Your task to perform on an android device: Go to settings Image 0: 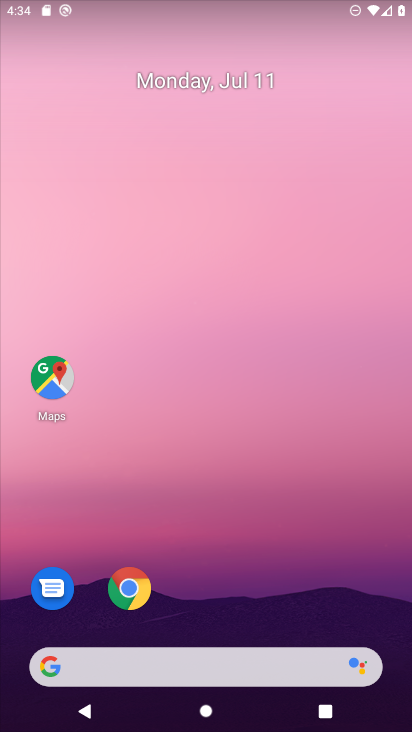
Step 0: press home button
Your task to perform on an android device: Go to settings Image 1: 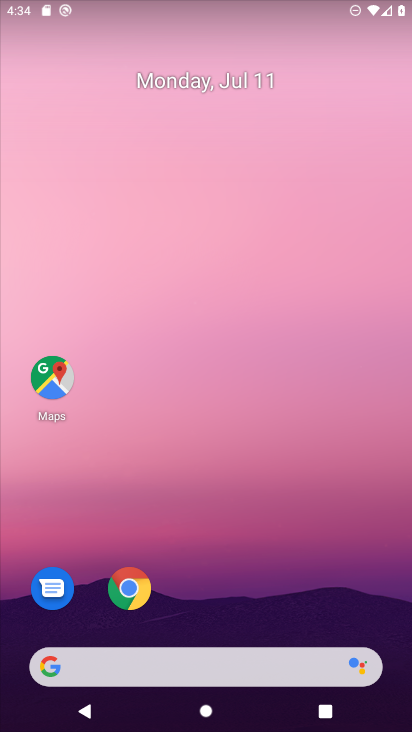
Step 1: drag from (222, 627) to (206, 66)
Your task to perform on an android device: Go to settings Image 2: 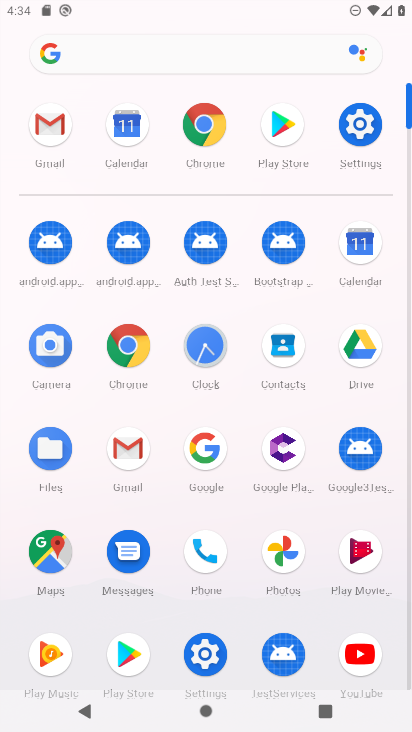
Step 2: click (364, 125)
Your task to perform on an android device: Go to settings Image 3: 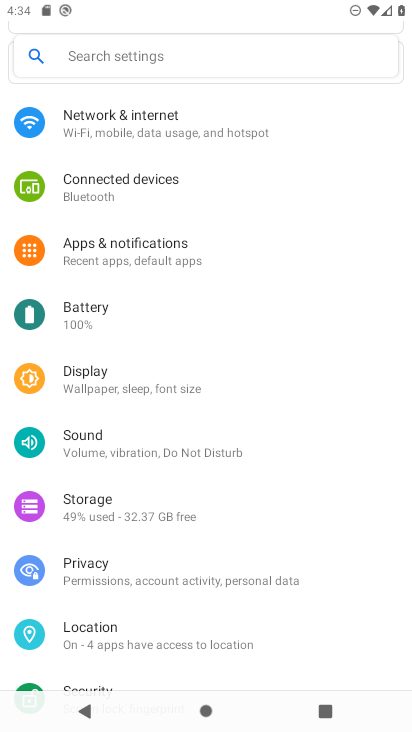
Step 3: task complete